Your task to perform on an android device: change alarm snooze length Image 0: 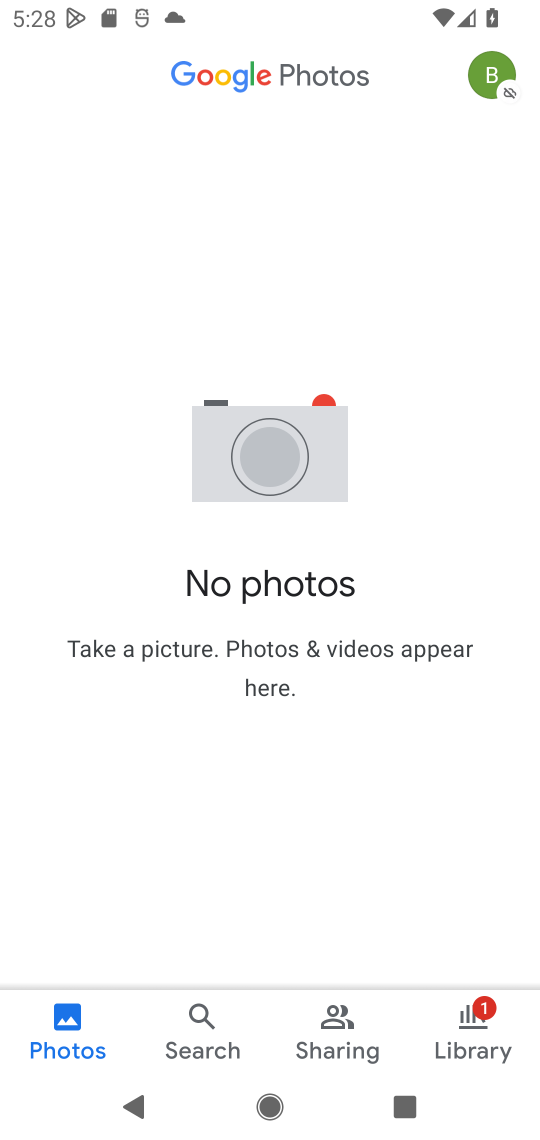
Step 0: press home button
Your task to perform on an android device: change alarm snooze length Image 1: 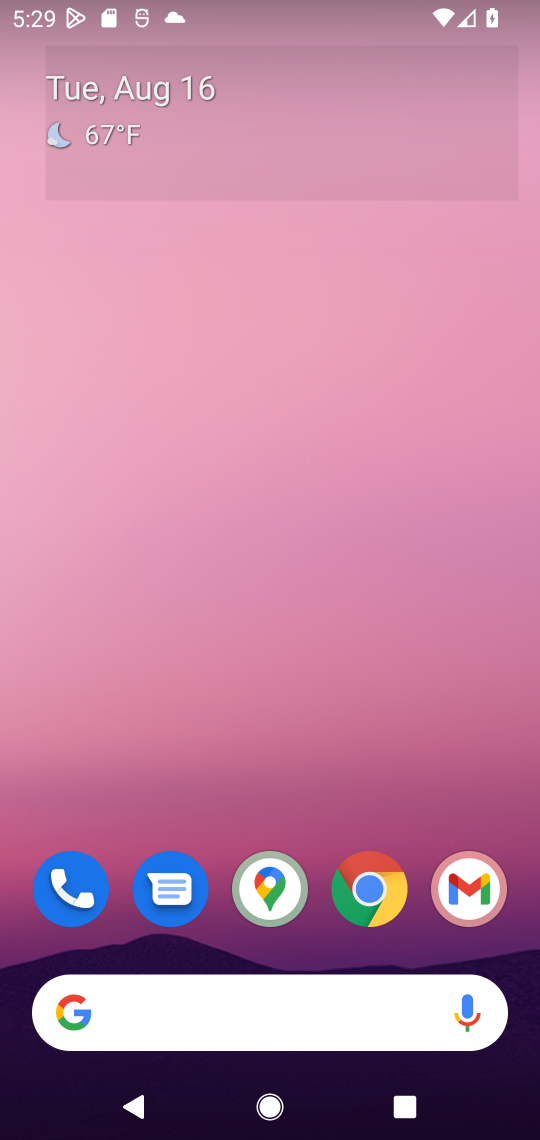
Step 1: drag from (332, 685) to (357, 192)
Your task to perform on an android device: change alarm snooze length Image 2: 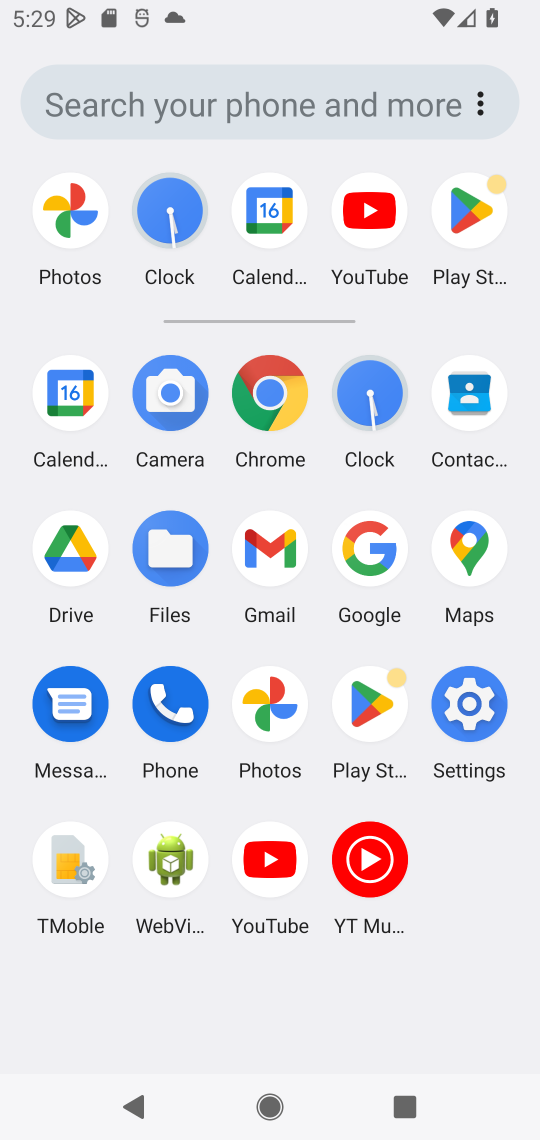
Step 2: click (370, 386)
Your task to perform on an android device: change alarm snooze length Image 3: 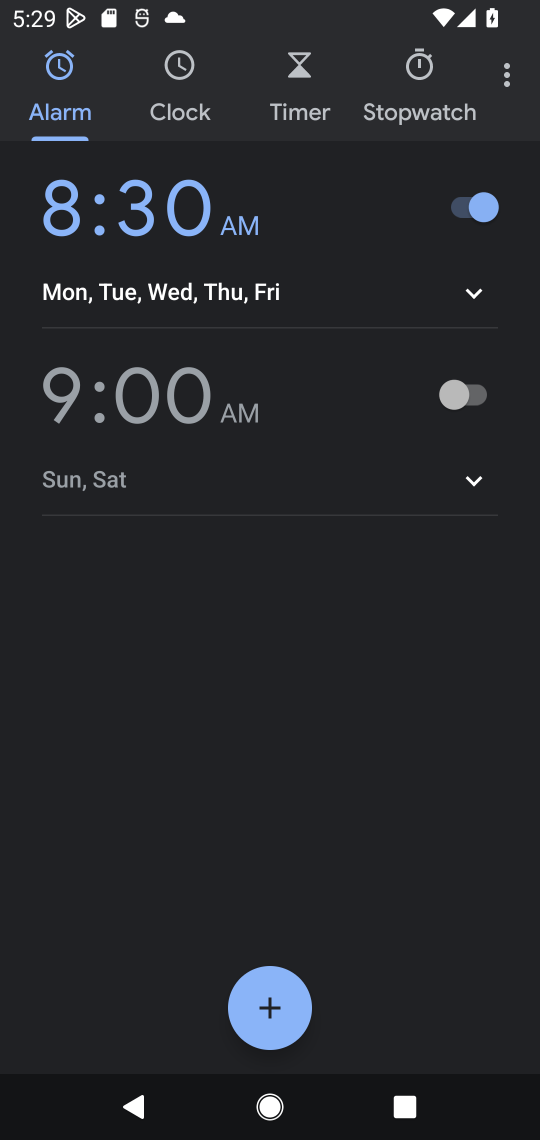
Step 3: click (503, 73)
Your task to perform on an android device: change alarm snooze length Image 4: 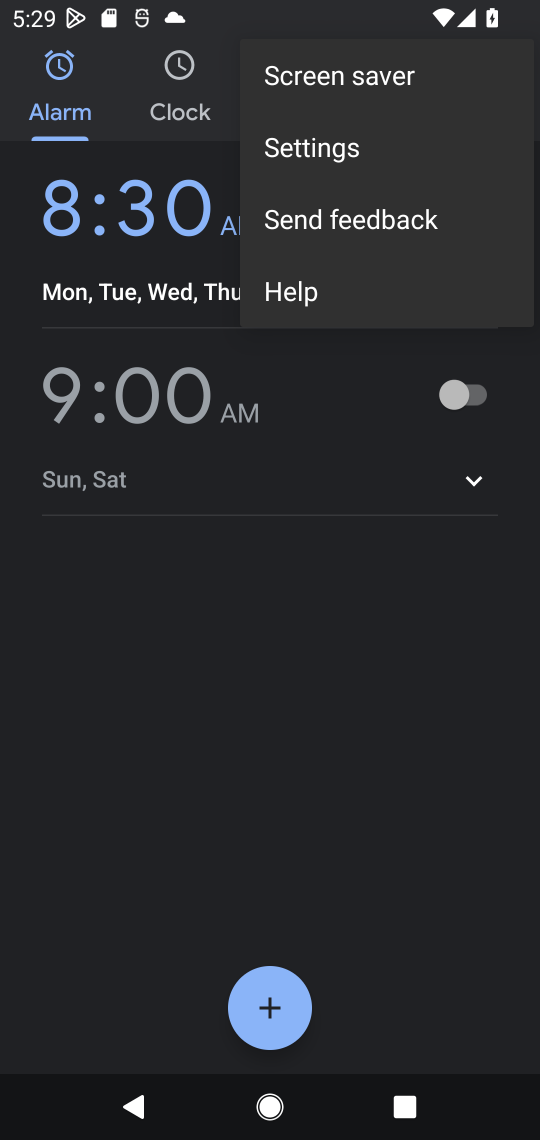
Step 4: click (302, 163)
Your task to perform on an android device: change alarm snooze length Image 5: 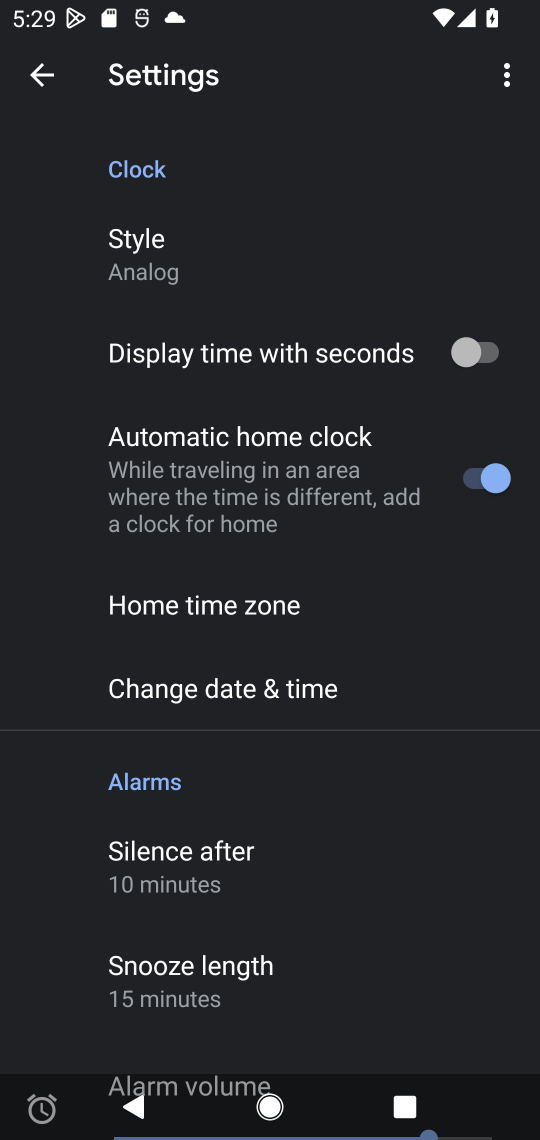
Step 5: click (177, 983)
Your task to perform on an android device: change alarm snooze length Image 6: 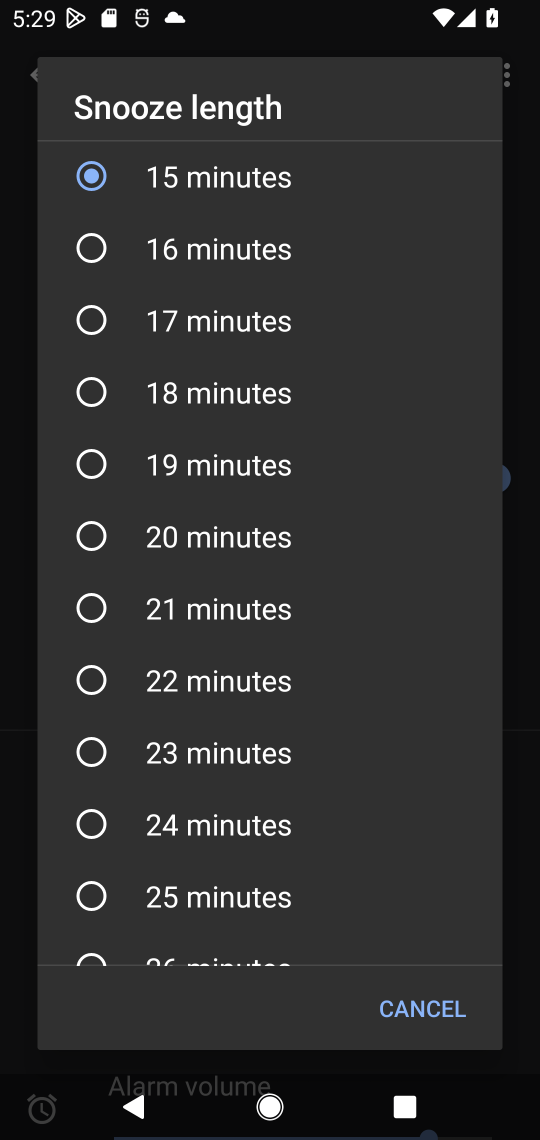
Step 6: click (223, 398)
Your task to perform on an android device: change alarm snooze length Image 7: 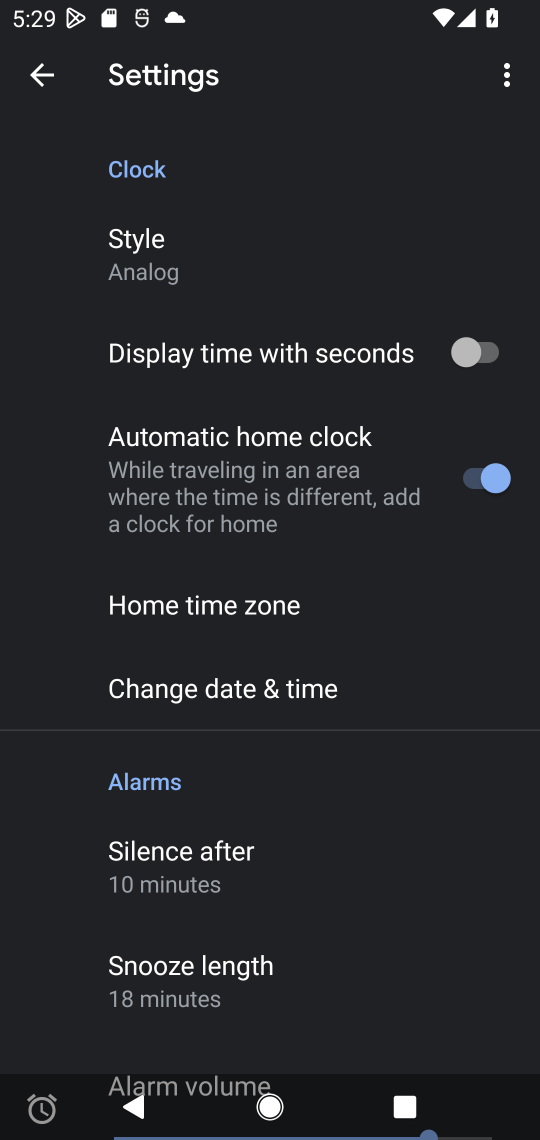
Step 7: task complete